Your task to perform on an android device: Open privacy settings Image 0: 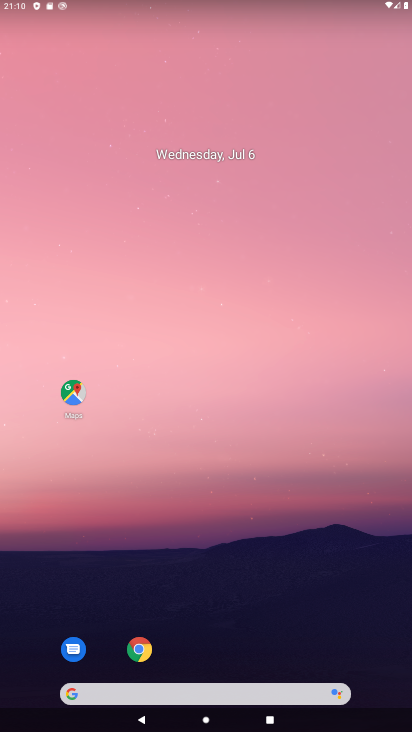
Step 0: drag from (216, 624) to (277, 278)
Your task to perform on an android device: Open privacy settings Image 1: 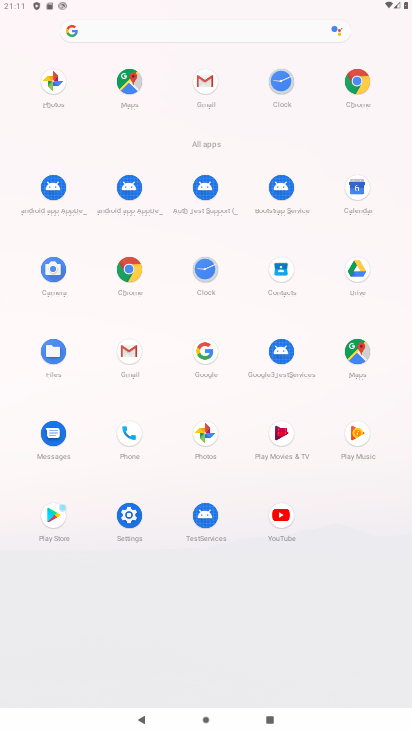
Step 1: click (134, 515)
Your task to perform on an android device: Open privacy settings Image 2: 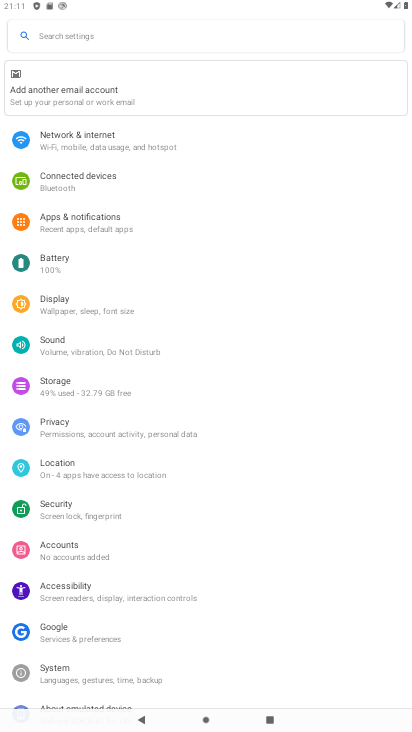
Step 2: click (63, 427)
Your task to perform on an android device: Open privacy settings Image 3: 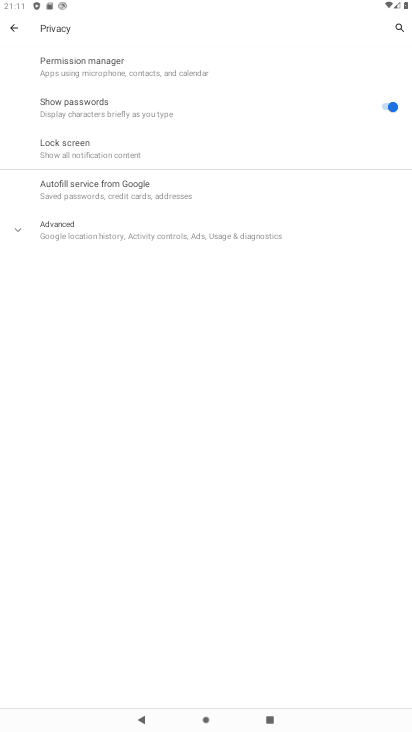
Step 3: task complete